Your task to perform on an android device: open app "Messages" (install if not already installed) Image 0: 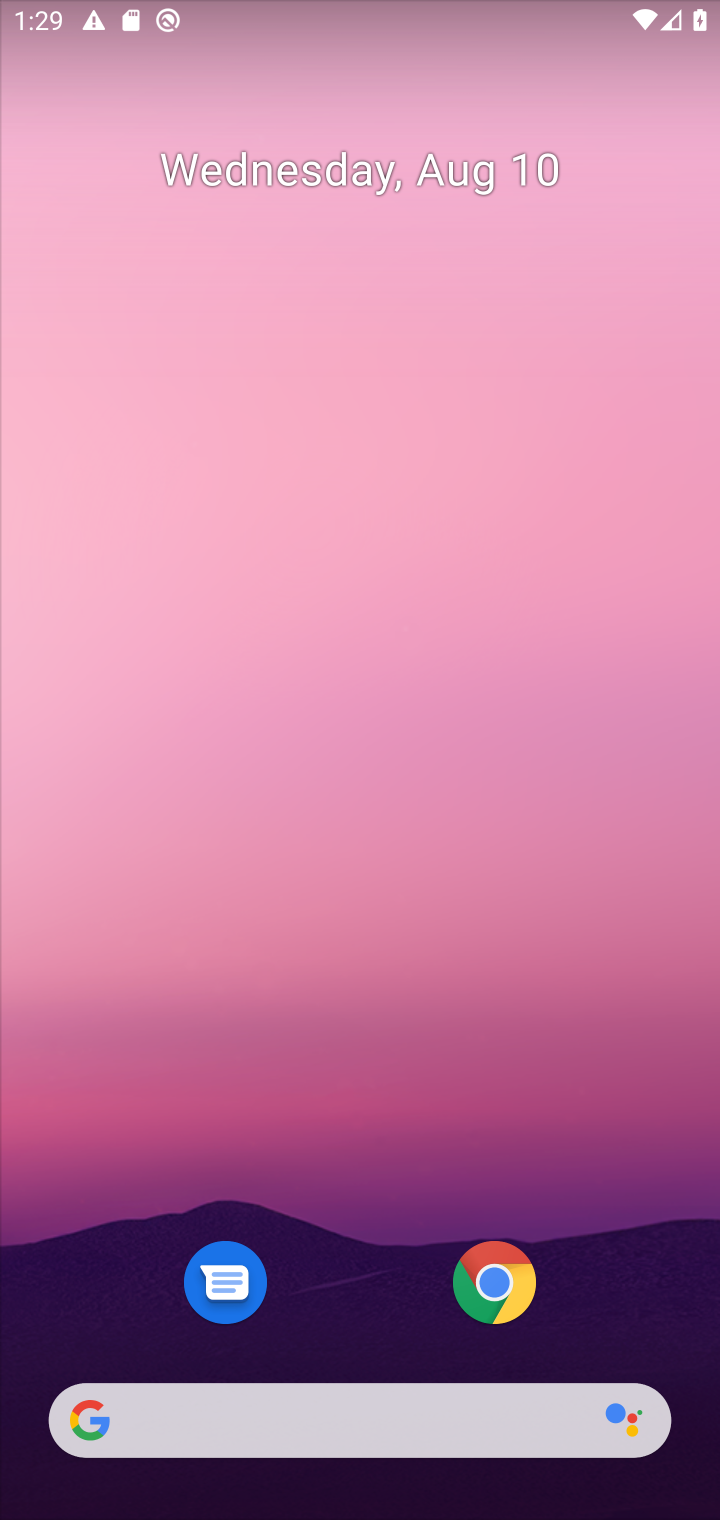
Step 0: click (237, 1259)
Your task to perform on an android device: open app "Messages" (install if not already installed) Image 1: 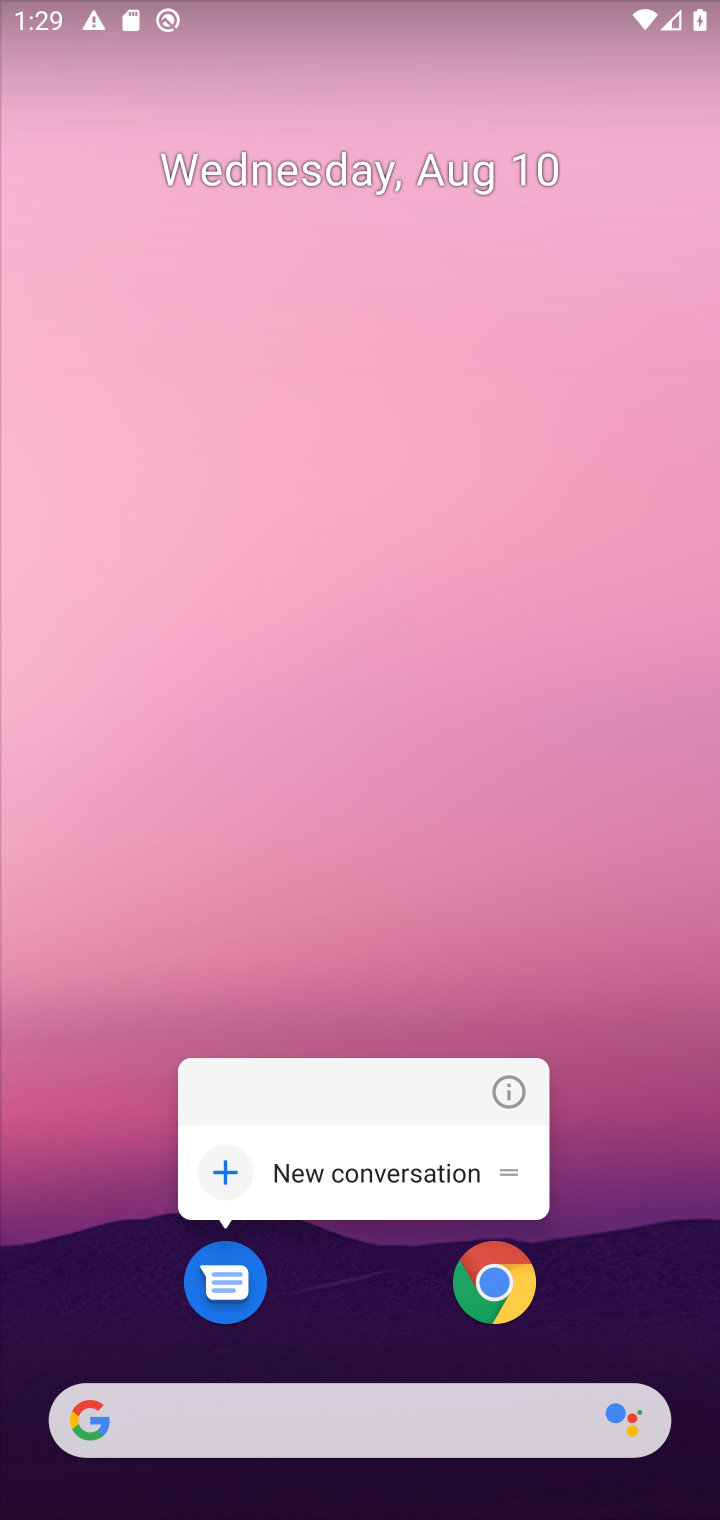
Step 1: click (249, 1296)
Your task to perform on an android device: open app "Messages" (install if not already installed) Image 2: 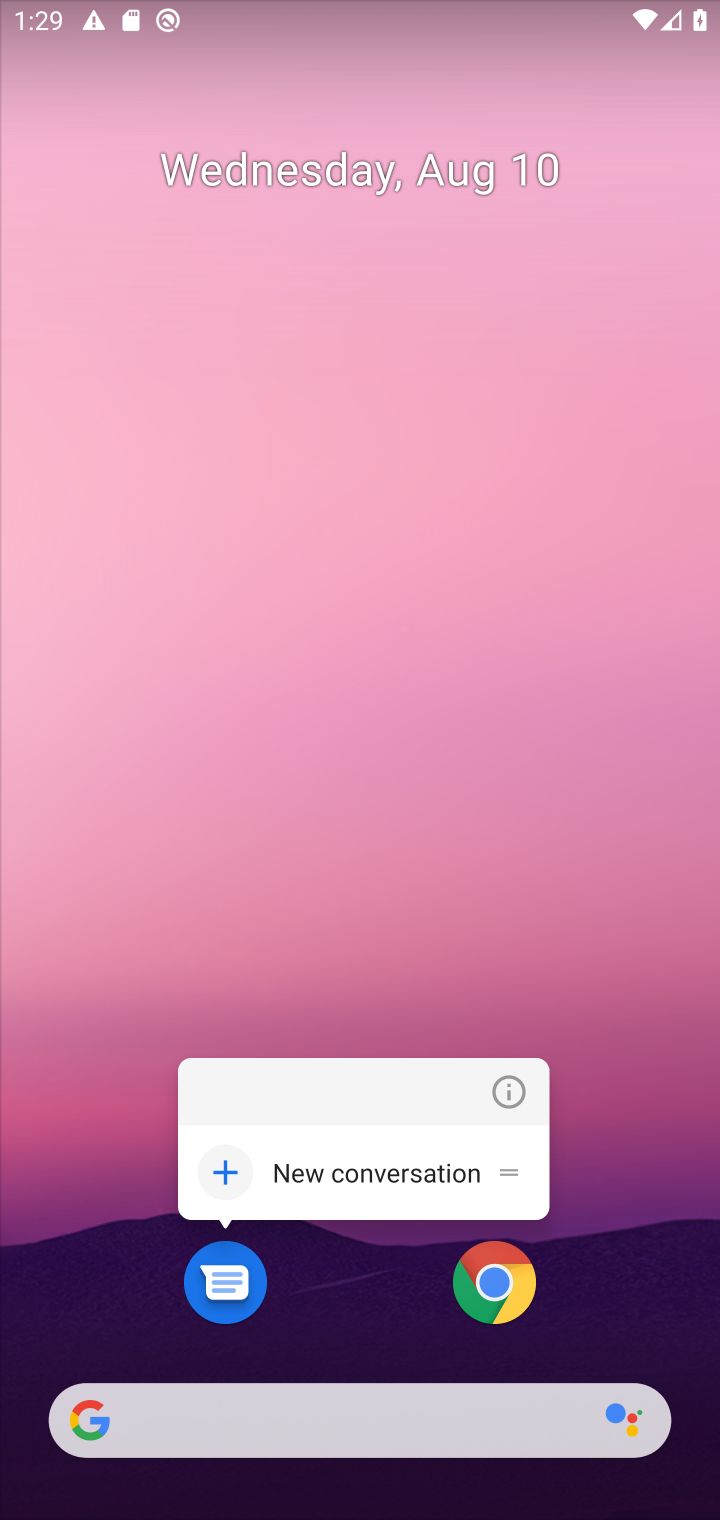
Step 2: click (243, 1318)
Your task to perform on an android device: open app "Messages" (install if not already installed) Image 3: 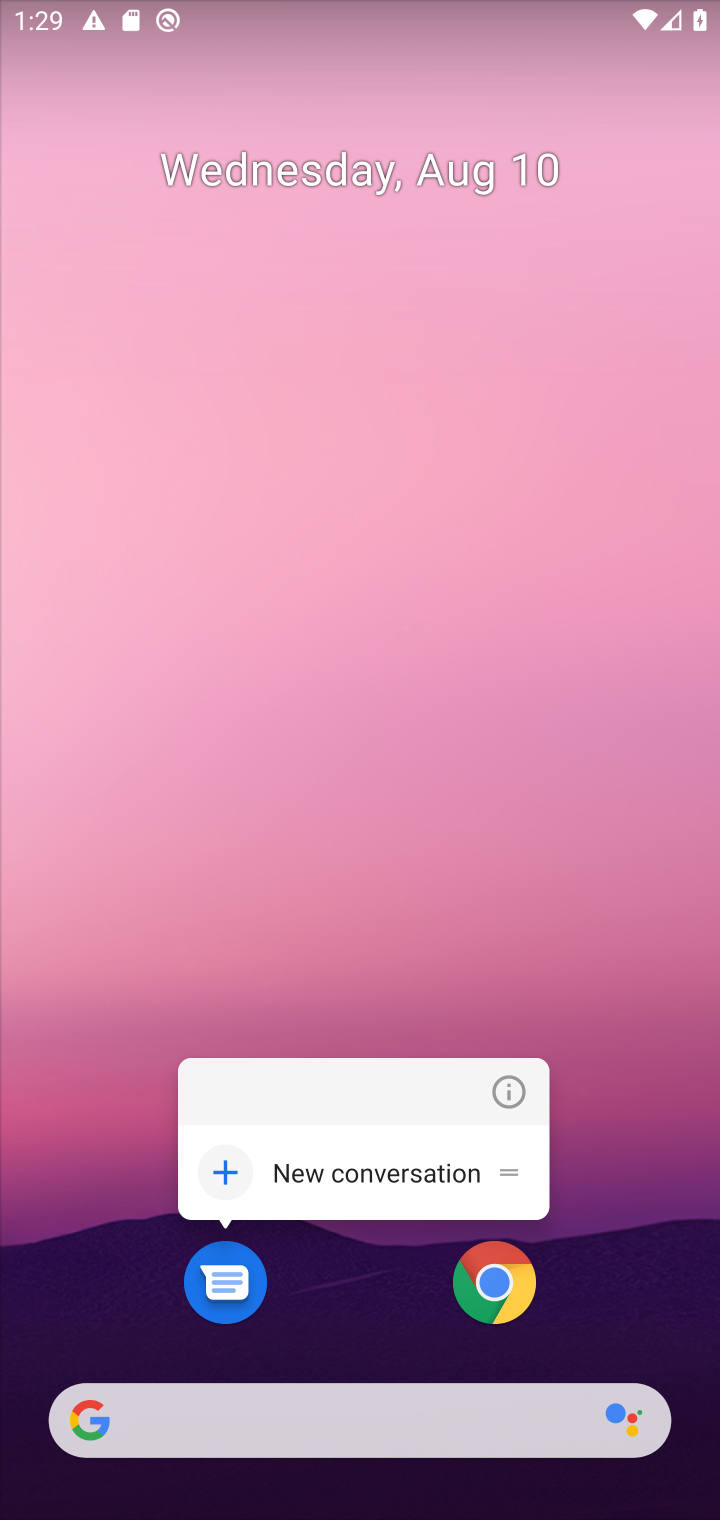
Step 3: click (225, 1300)
Your task to perform on an android device: open app "Messages" (install if not already installed) Image 4: 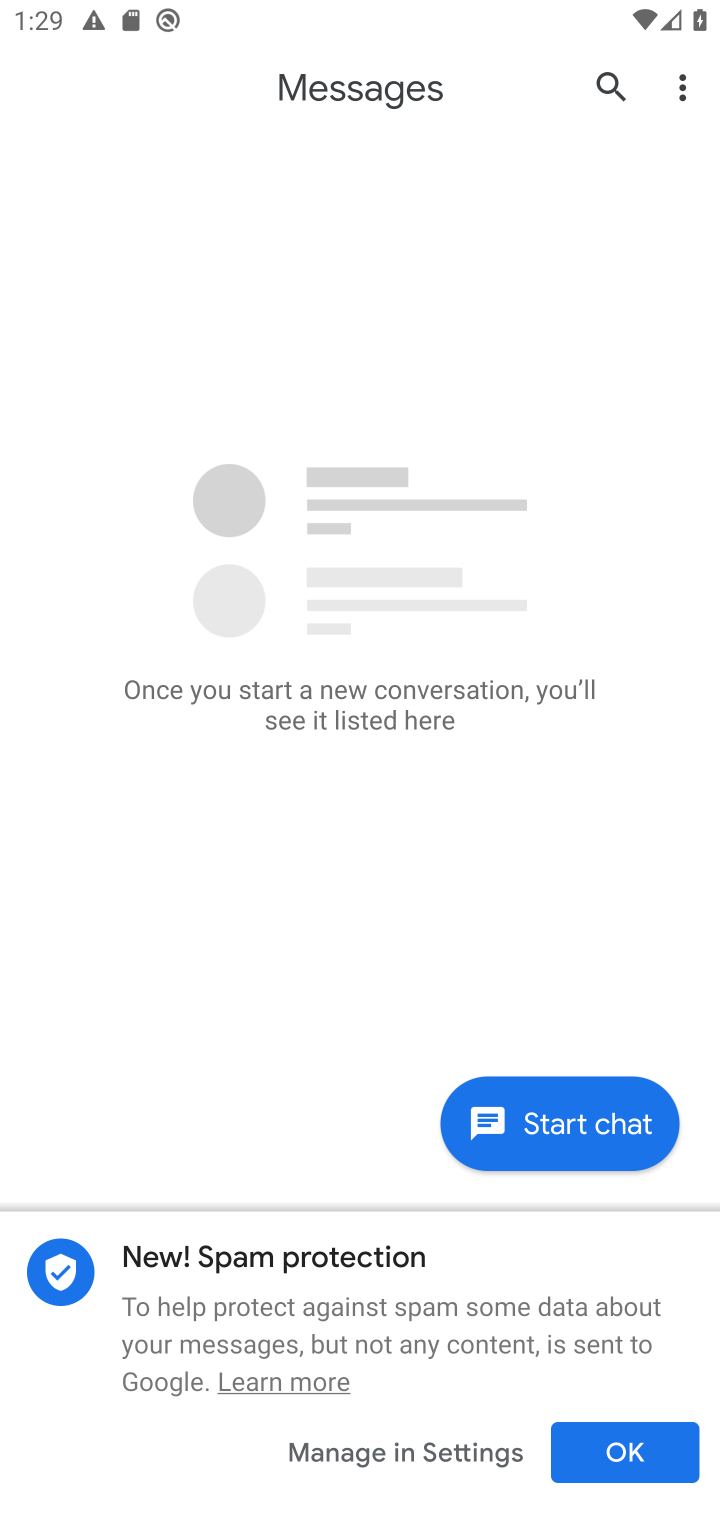
Step 4: task complete